Your task to perform on an android device: Go to battery settings Image 0: 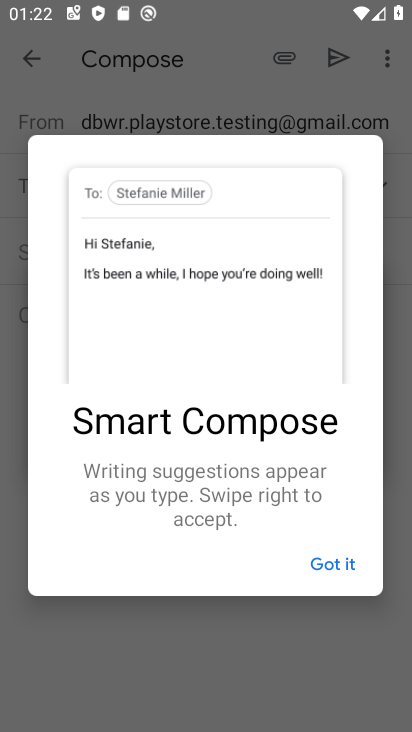
Step 0: press home button
Your task to perform on an android device: Go to battery settings Image 1: 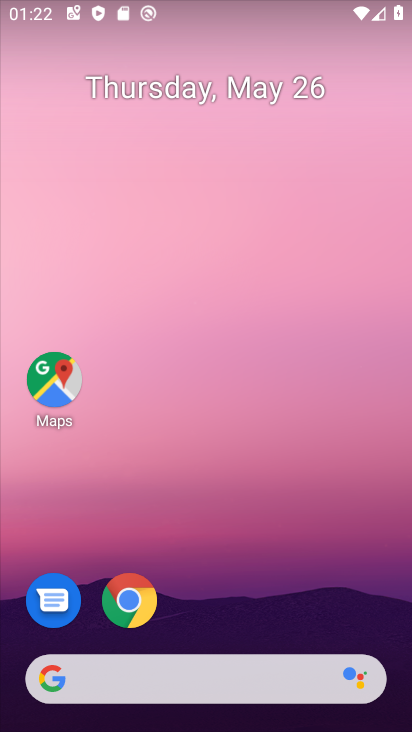
Step 1: drag from (244, 551) to (281, 222)
Your task to perform on an android device: Go to battery settings Image 2: 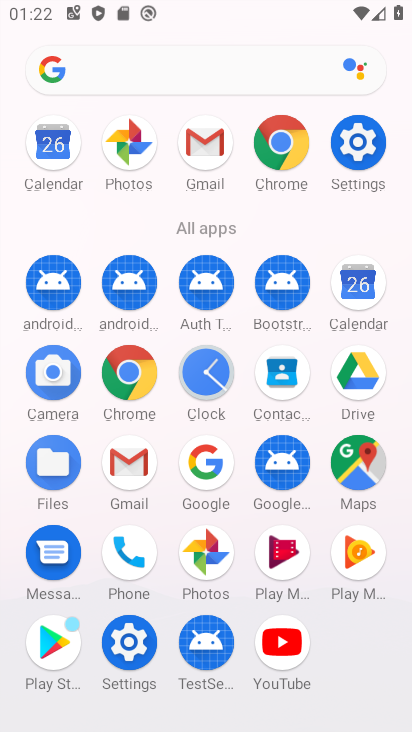
Step 2: click (362, 136)
Your task to perform on an android device: Go to battery settings Image 3: 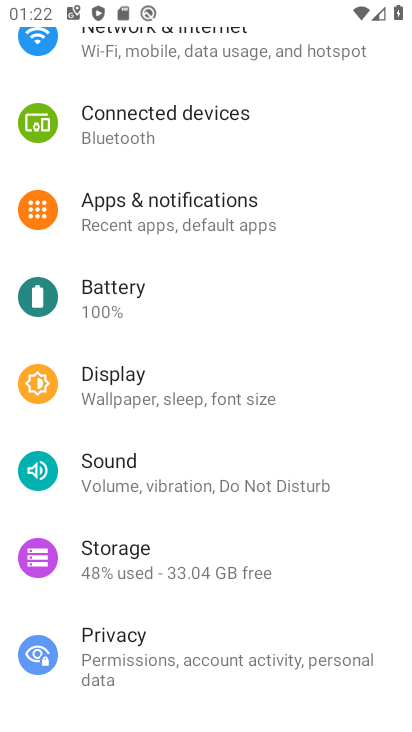
Step 3: click (213, 278)
Your task to perform on an android device: Go to battery settings Image 4: 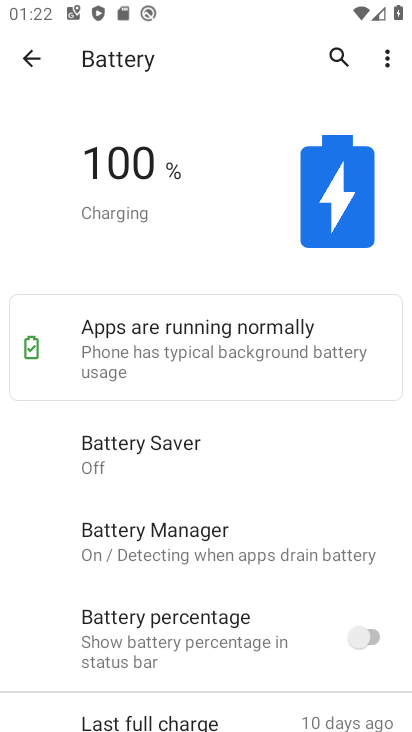
Step 4: task complete